Your task to perform on an android device: check the backup settings in the google photos Image 0: 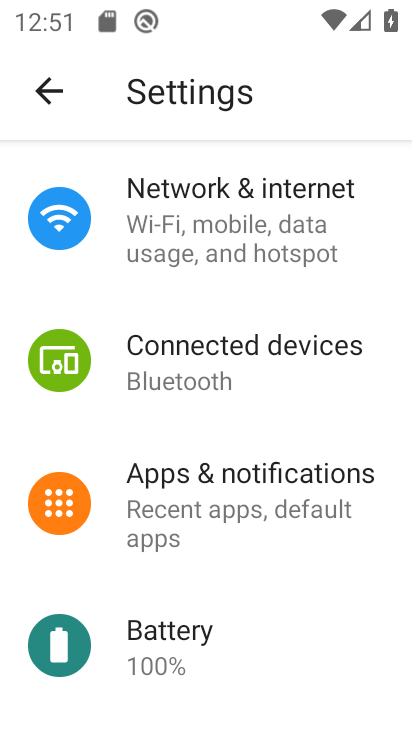
Step 0: press back button
Your task to perform on an android device: check the backup settings in the google photos Image 1: 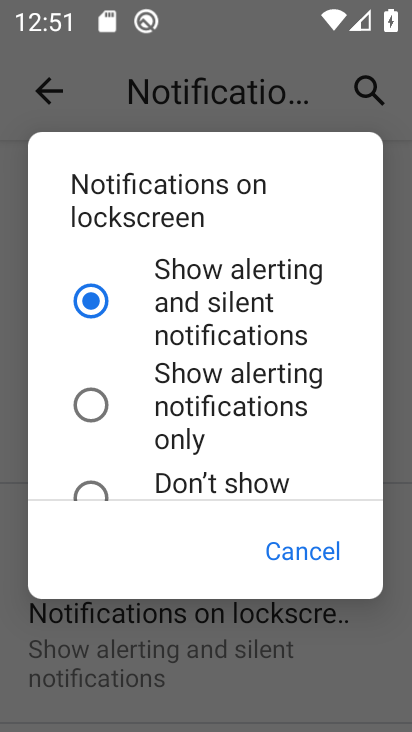
Step 1: press home button
Your task to perform on an android device: check the backup settings in the google photos Image 2: 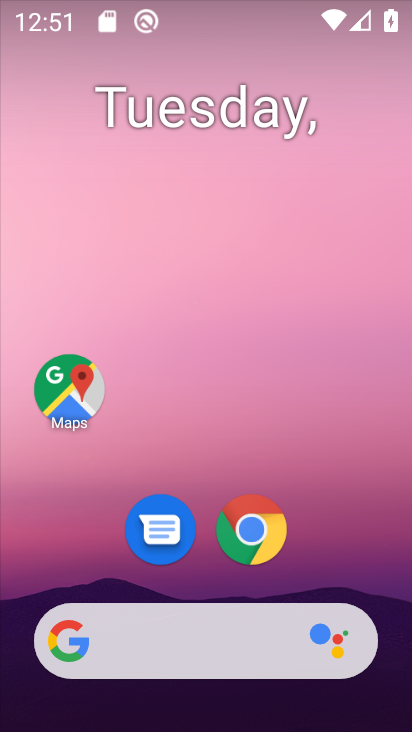
Step 2: drag from (155, 611) to (301, 91)
Your task to perform on an android device: check the backup settings in the google photos Image 3: 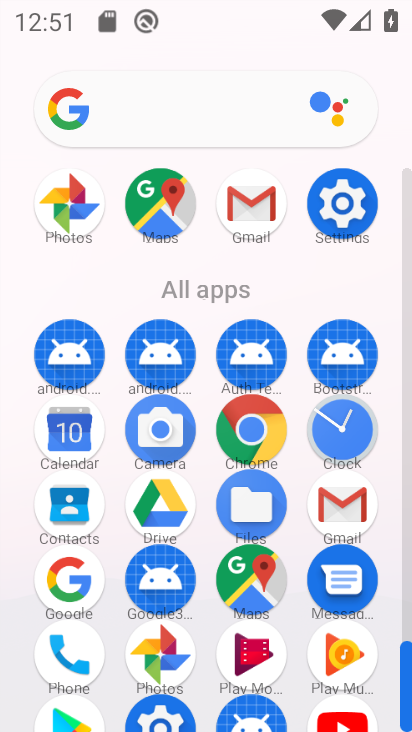
Step 3: click (157, 662)
Your task to perform on an android device: check the backup settings in the google photos Image 4: 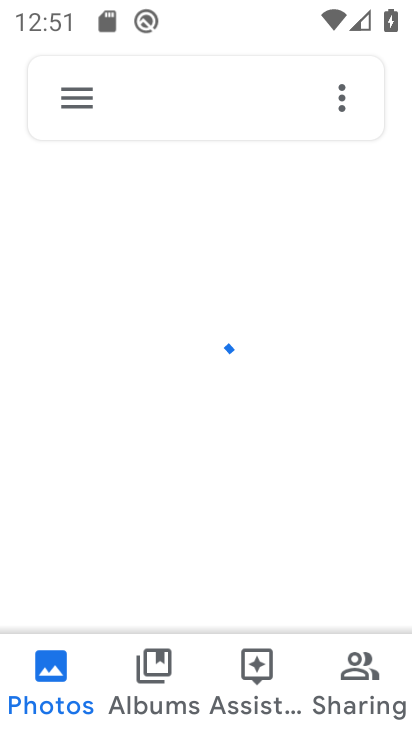
Step 4: click (78, 97)
Your task to perform on an android device: check the backup settings in the google photos Image 5: 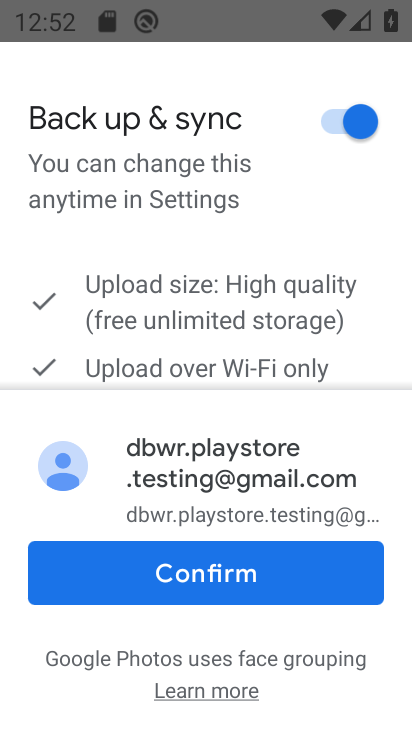
Step 5: click (247, 574)
Your task to perform on an android device: check the backup settings in the google photos Image 6: 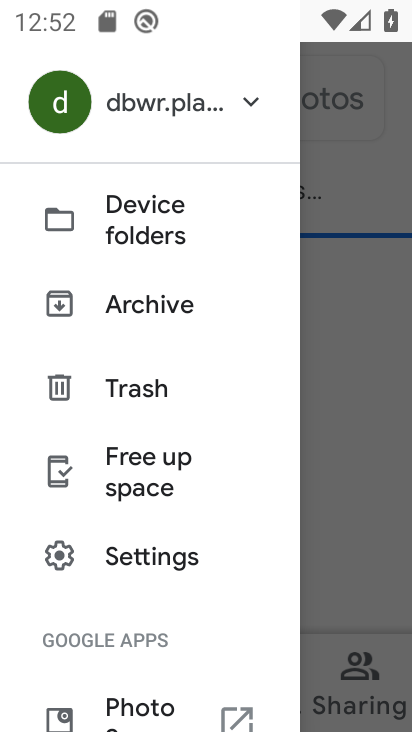
Step 6: drag from (157, 690) to (243, 322)
Your task to perform on an android device: check the backup settings in the google photos Image 7: 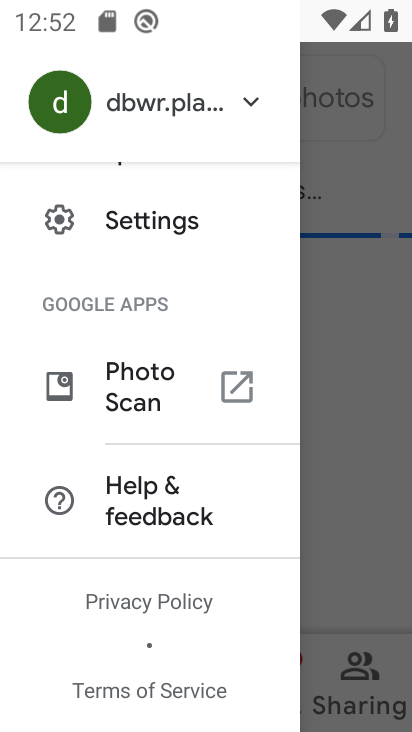
Step 7: drag from (160, 659) to (191, 436)
Your task to perform on an android device: check the backup settings in the google photos Image 8: 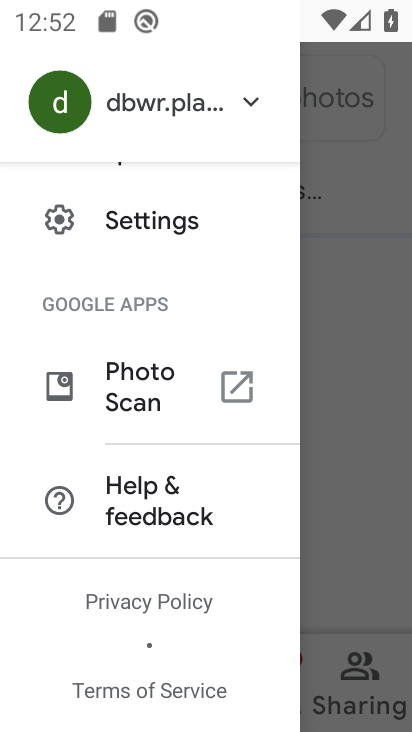
Step 8: click (159, 236)
Your task to perform on an android device: check the backup settings in the google photos Image 9: 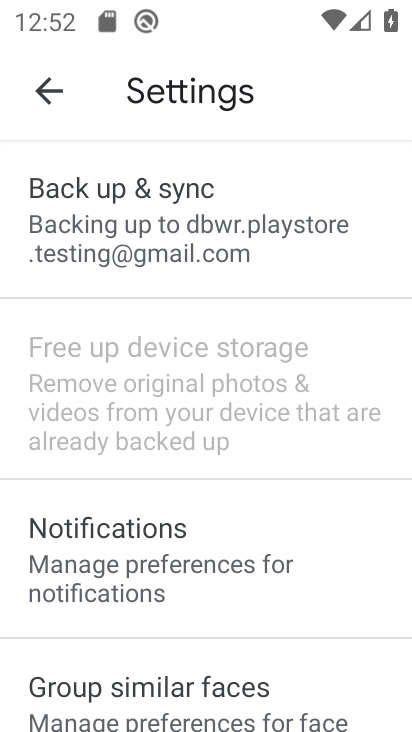
Step 9: click (162, 209)
Your task to perform on an android device: check the backup settings in the google photos Image 10: 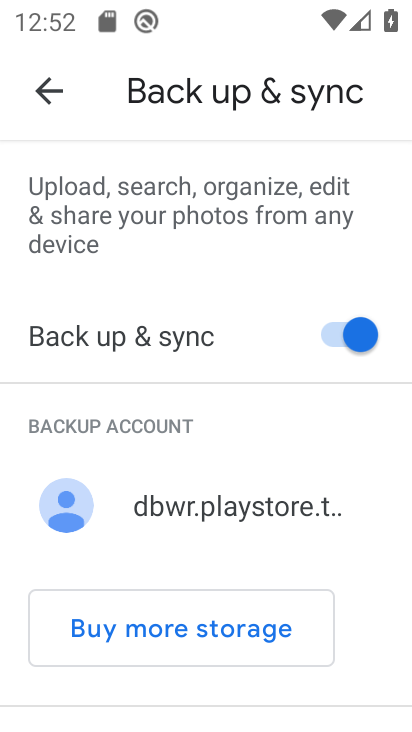
Step 10: task complete